Your task to perform on an android device: Open maps Image 0: 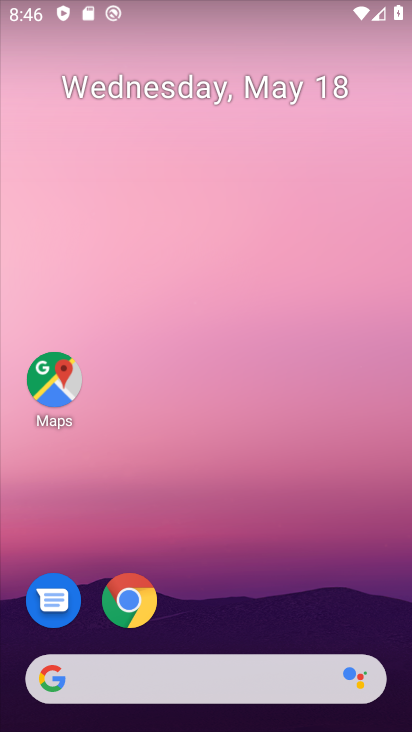
Step 0: drag from (34, 663) to (142, 239)
Your task to perform on an android device: Open maps Image 1: 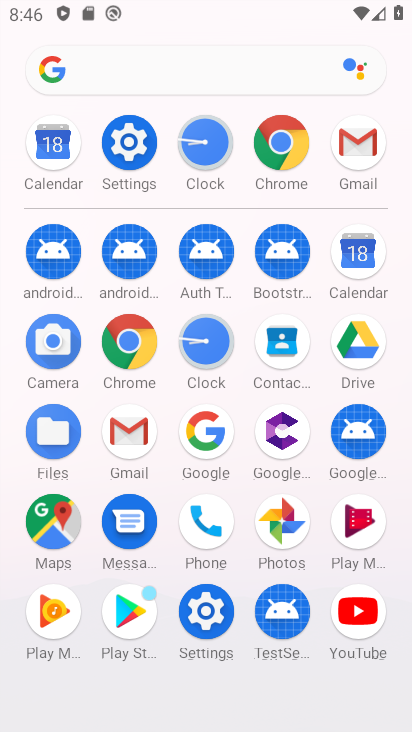
Step 1: click (45, 517)
Your task to perform on an android device: Open maps Image 2: 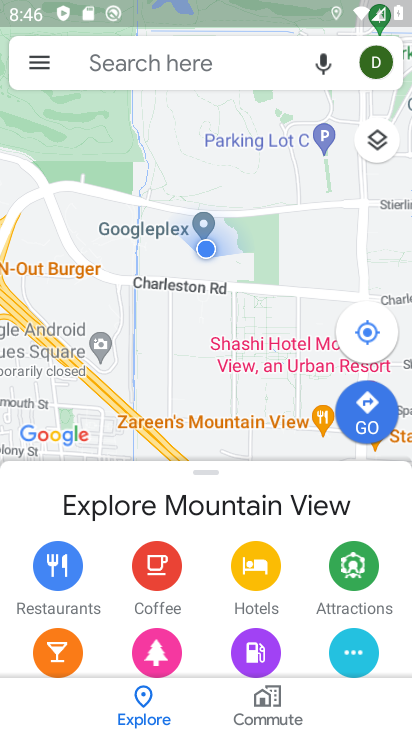
Step 2: task complete